Your task to perform on an android device: Turn off the flashlight Image 0: 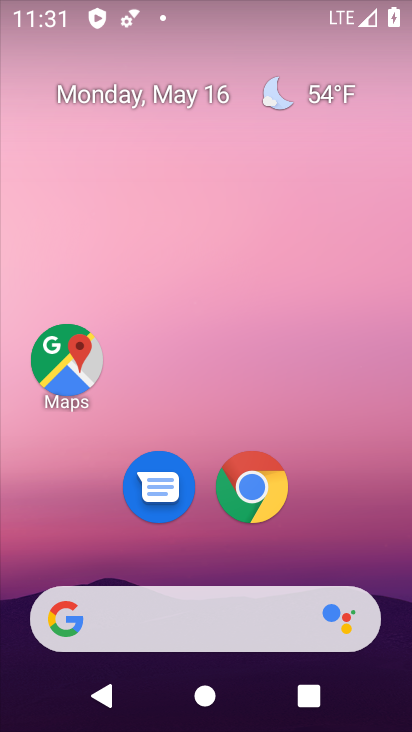
Step 0: drag from (226, 517) to (249, 15)
Your task to perform on an android device: Turn off the flashlight Image 1: 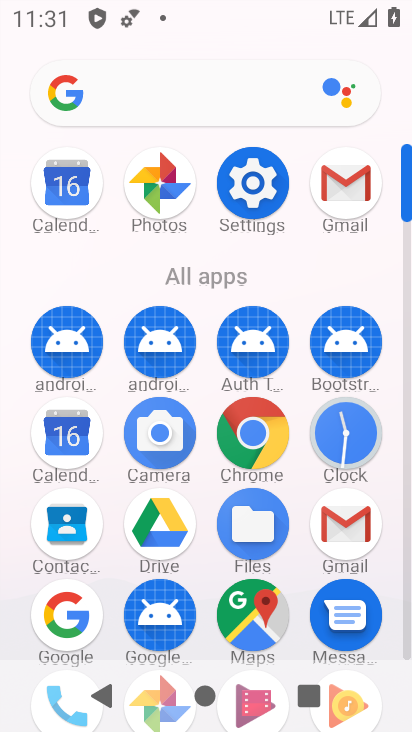
Step 1: click (243, 187)
Your task to perform on an android device: Turn off the flashlight Image 2: 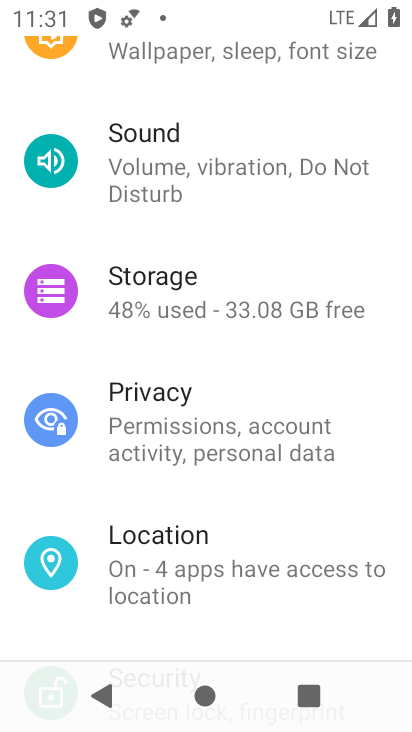
Step 2: drag from (214, 169) to (218, 629)
Your task to perform on an android device: Turn off the flashlight Image 3: 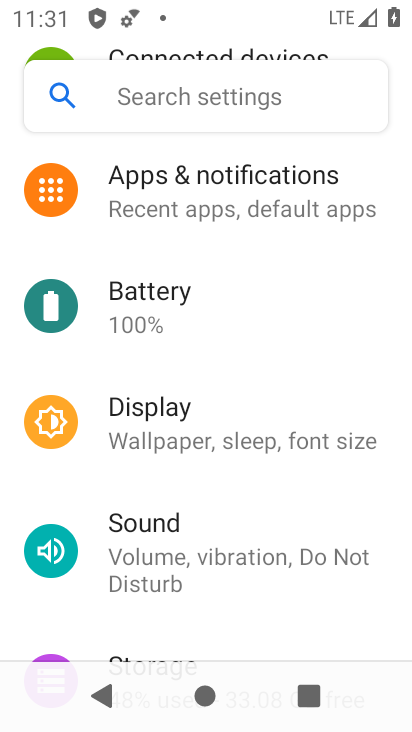
Step 3: click (135, 112)
Your task to perform on an android device: Turn off the flashlight Image 4: 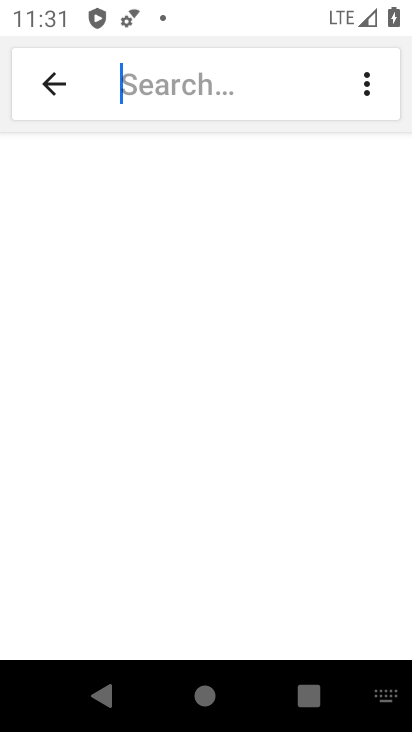
Step 4: type "flashlight"
Your task to perform on an android device: Turn off the flashlight Image 5: 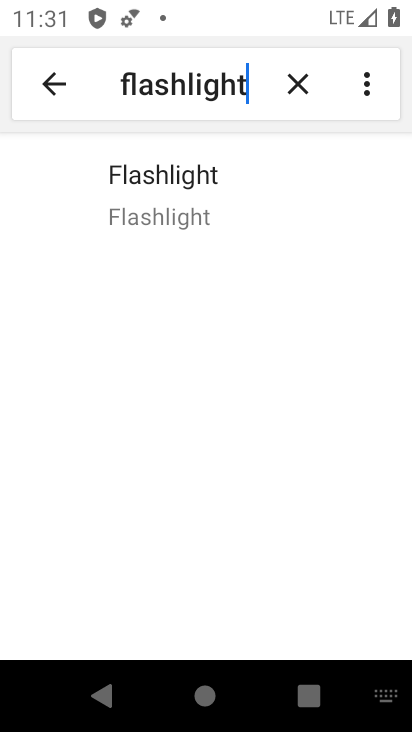
Step 5: click (161, 190)
Your task to perform on an android device: Turn off the flashlight Image 6: 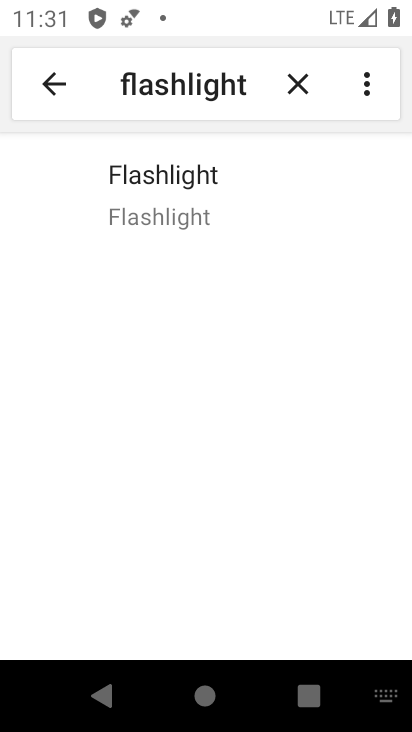
Step 6: task complete